Your task to perform on an android device: turn off priority inbox in the gmail app Image 0: 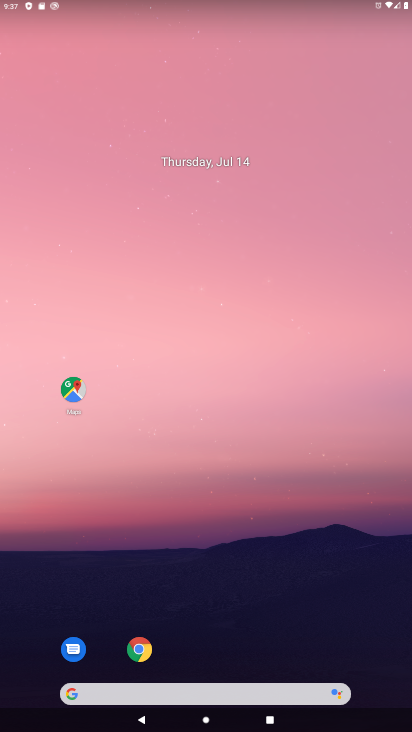
Step 0: drag from (209, 597) to (136, 84)
Your task to perform on an android device: turn off priority inbox in the gmail app Image 1: 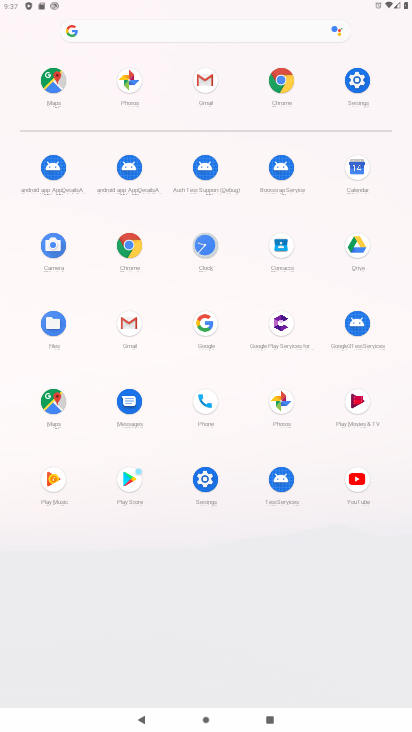
Step 1: click (204, 93)
Your task to perform on an android device: turn off priority inbox in the gmail app Image 2: 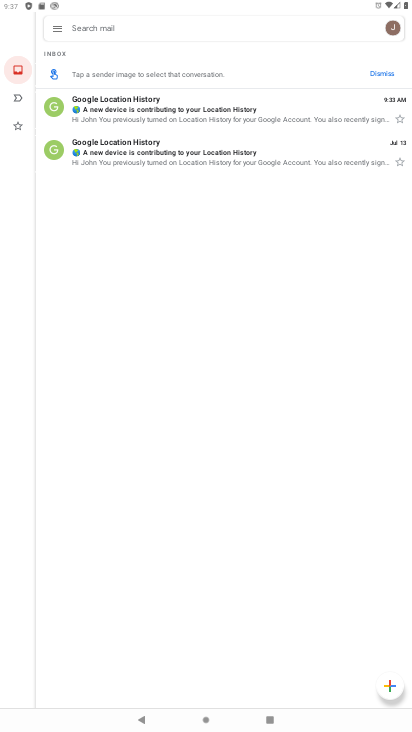
Step 2: click (58, 28)
Your task to perform on an android device: turn off priority inbox in the gmail app Image 3: 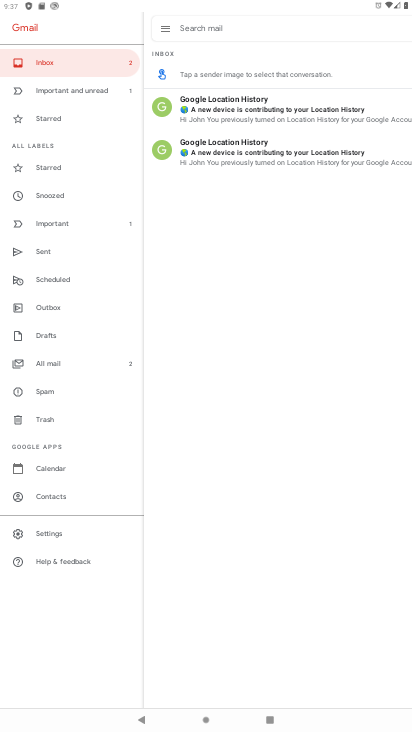
Step 3: click (42, 533)
Your task to perform on an android device: turn off priority inbox in the gmail app Image 4: 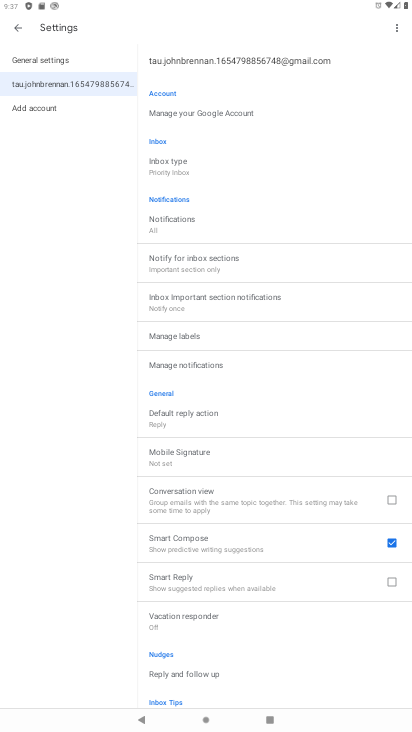
Step 4: click (176, 162)
Your task to perform on an android device: turn off priority inbox in the gmail app Image 5: 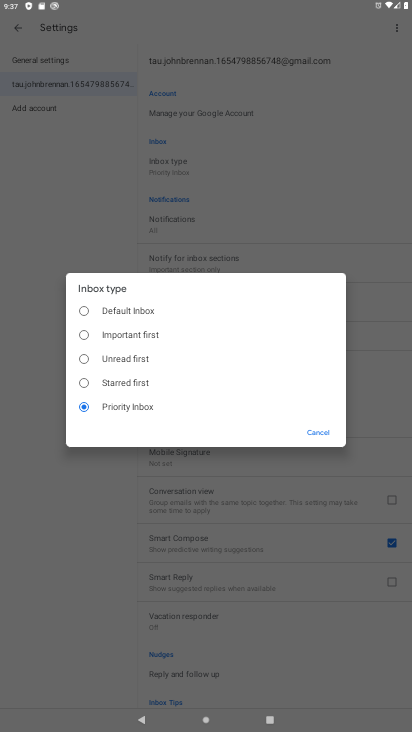
Step 5: click (91, 311)
Your task to perform on an android device: turn off priority inbox in the gmail app Image 6: 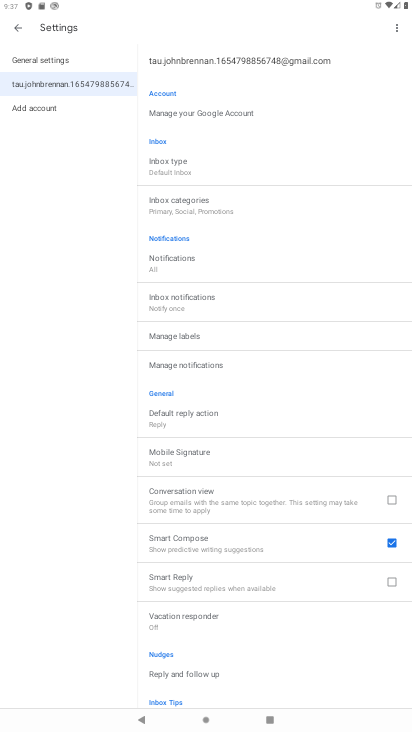
Step 6: task complete